Your task to perform on an android device: turn on showing notifications on the lock screen Image 0: 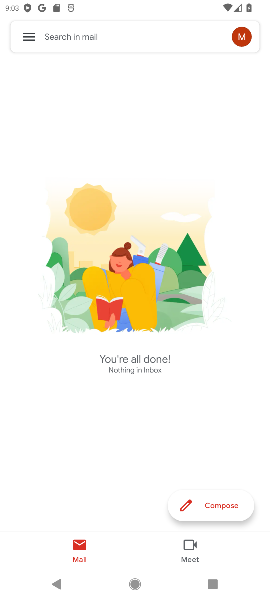
Step 0: press home button
Your task to perform on an android device: turn on showing notifications on the lock screen Image 1: 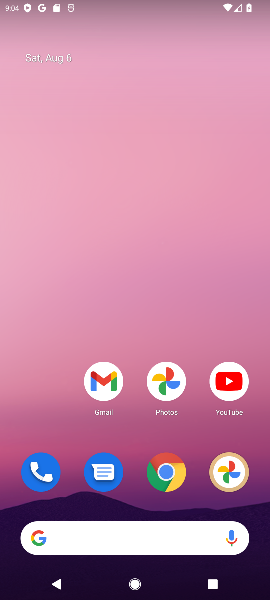
Step 1: drag from (257, 583) to (250, 195)
Your task to perform on an android device: turn on showing notifications on the lock screen Image 2: 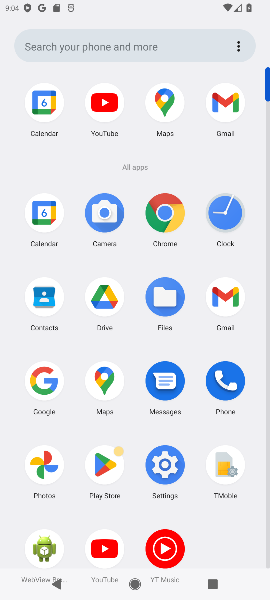
Step 2: click (168, 463)
Your task to perform on an android device: turn on showing notifications on the lock screen Image 3: 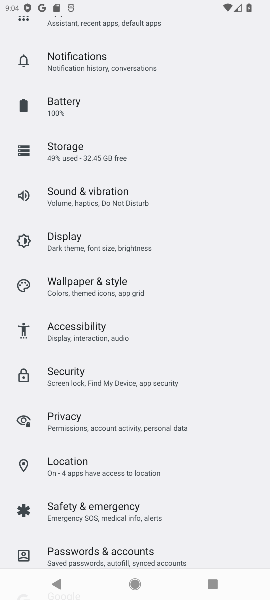
Step 3: click (95, 55)
Your task to perform on an android device: turn on showing notifications on the lock screen Image 4: 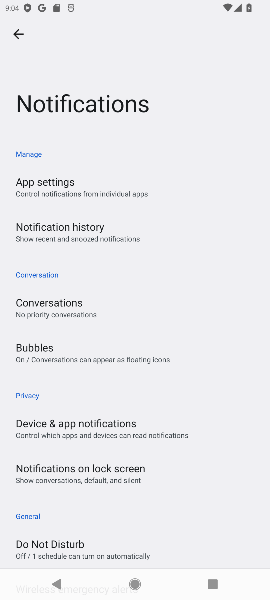
Step 4: click (70, 469)
Your task to perform on an android device: turn on showing notifications on the lock screen Image 5: 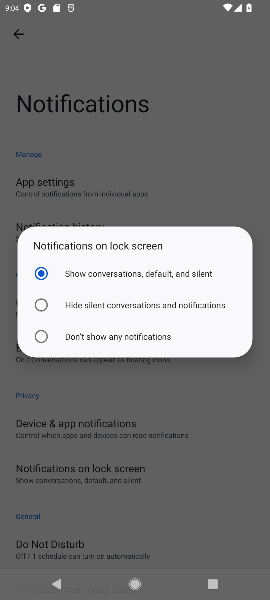
Step 5: task complete